Your task to perform on an android device: Open calendar and show me the fourth week of next month Image 0: 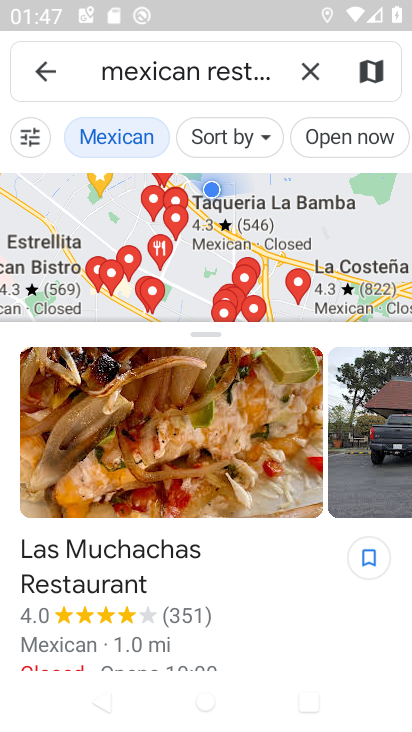
Step 0: press home button
Your task to perform on an android device: Open calendar and show me the fourth week of next month Image 1: 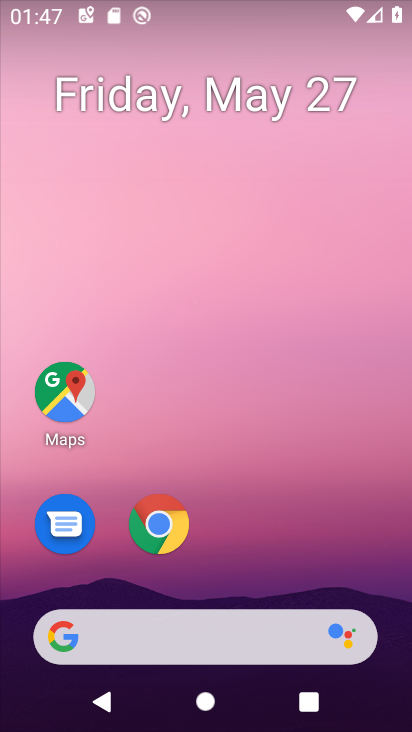
Step 1: drag from (245, 538) to (304, 34)
Your task to perform on an android device: Open calendar and show me the fourth week of next month Image 2: 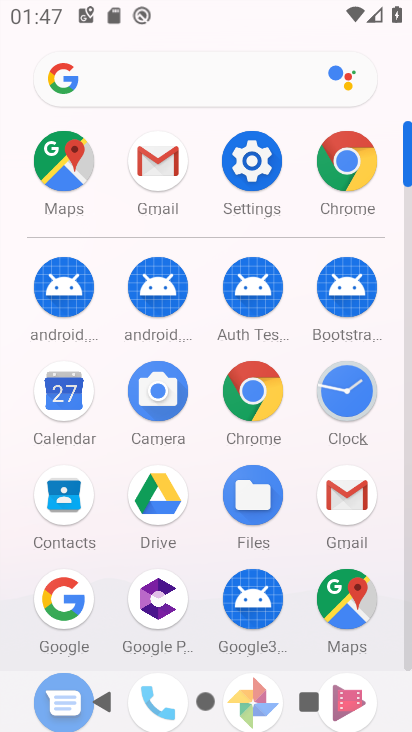
Step 2: click (61, 381)
Your task to perform on an android device: Open calendar and show me the fourth week of next month Image 3: 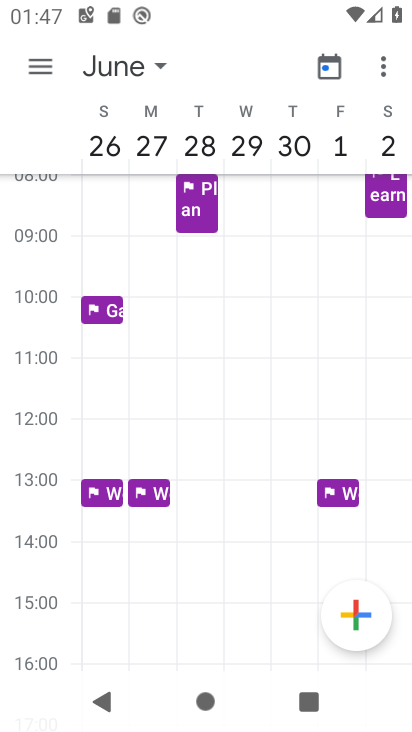
Step 3: task complete